Your task to perform on an android device: turn off sleep mode Image 0: 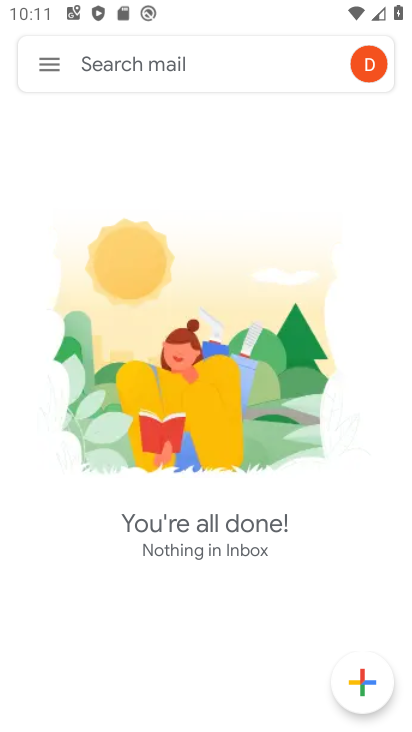
Step 0: press back button
Your task to perform on an android device: turn off sleep mode Image 1: 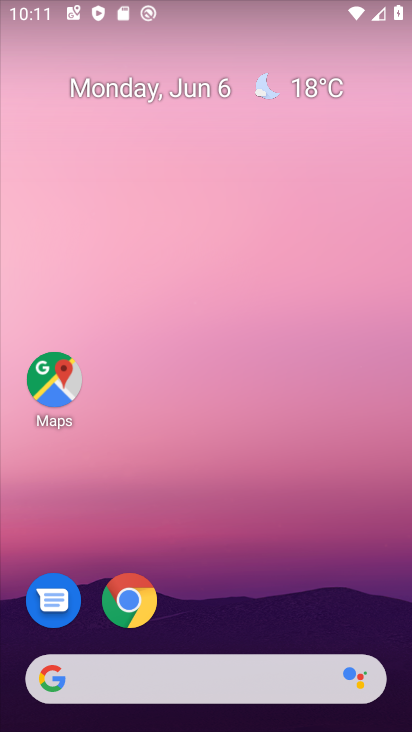
Step 1: drag from (261, 568) to (250, 12)
Your task to perform on an android device: turn off sleep mode Image 2: 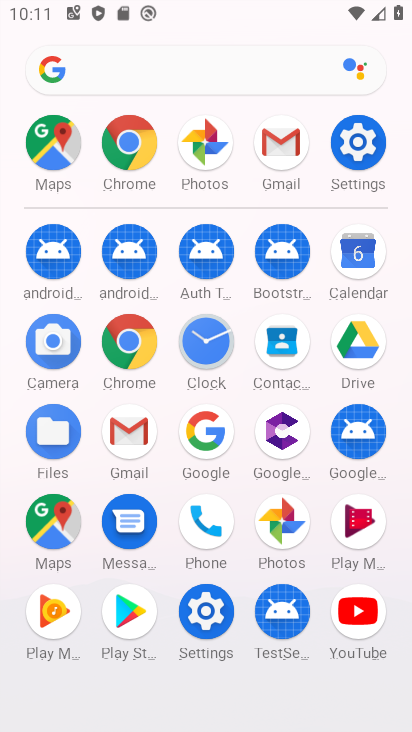
Step 2: click (204, 607)
Your task to perform on an android device: turn off sleep mode Image 3: 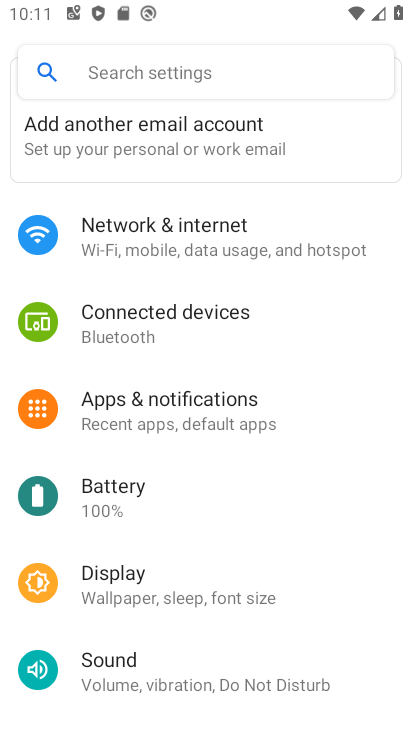
Step 3: click (245, 265)
Your task to perform on an android device: turn off sleep mode Image 4: 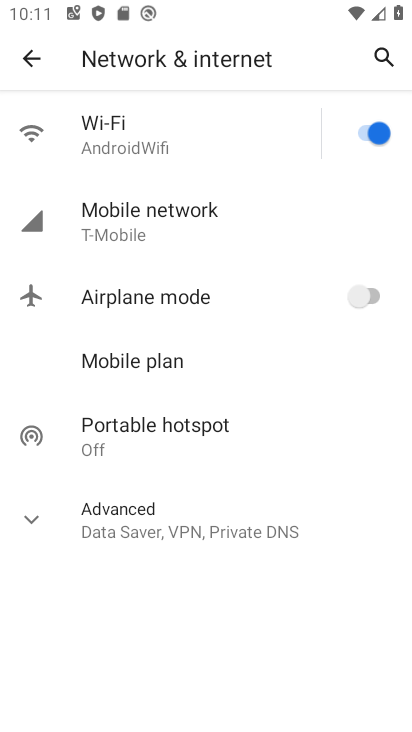
Step 4: click (64, 519)
Your task to perform on an android device: turn off sleep mode Image 5: 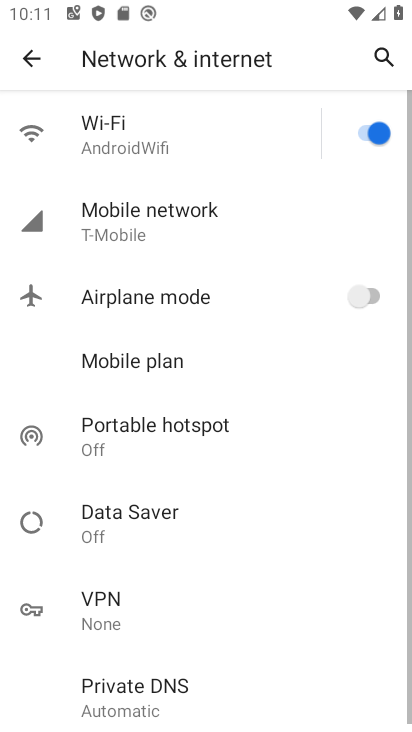
Step 5: click (25, 50)
Your task to perform on an android device: turn off sleep mode Image 6: 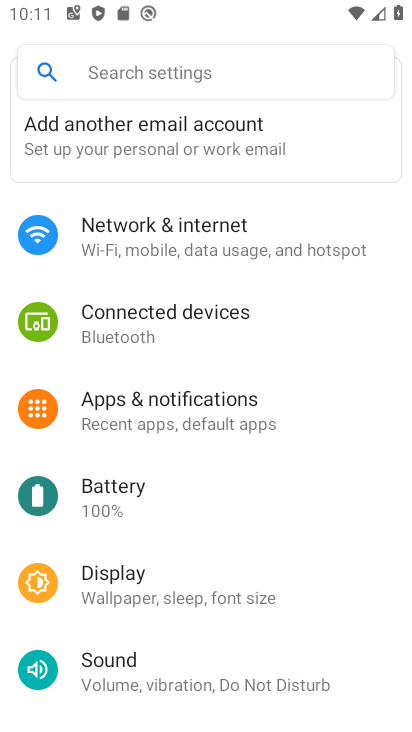
Step 6: click (214, 582)
Your task to perform on an android device: turn off sleep mode Image 7: 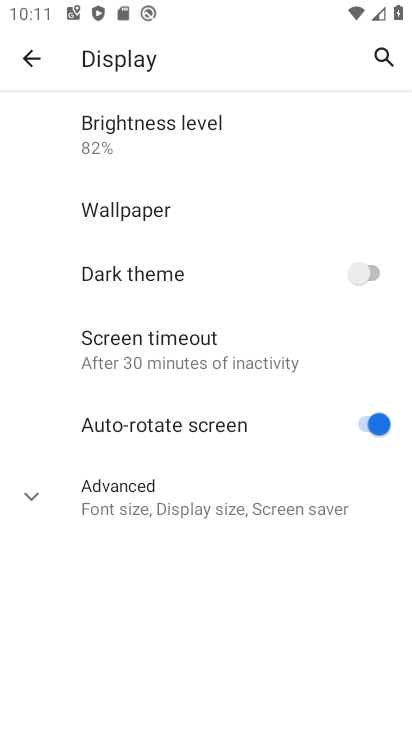
Step 7: click (36, 504)
Your task to perform on an android device: turn off sleep mode Image 8: 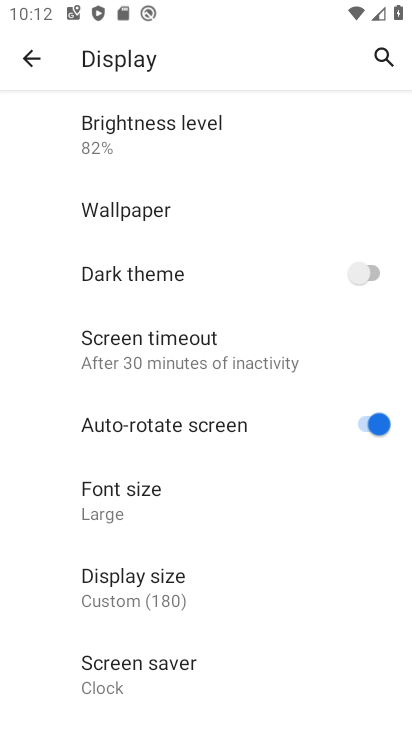
Step 8: task complete